Your task to perform on an android device: add a label to a message in the gmail app Image 0: 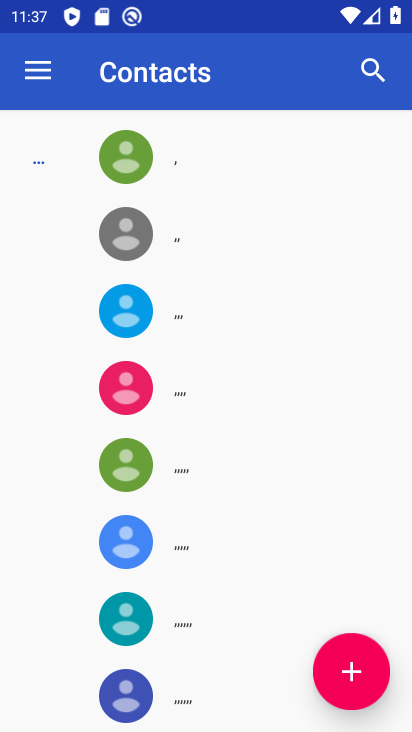
Step 0: press home button
Your task to perform on an android device: add a label to a message in the gmail app Image 1: 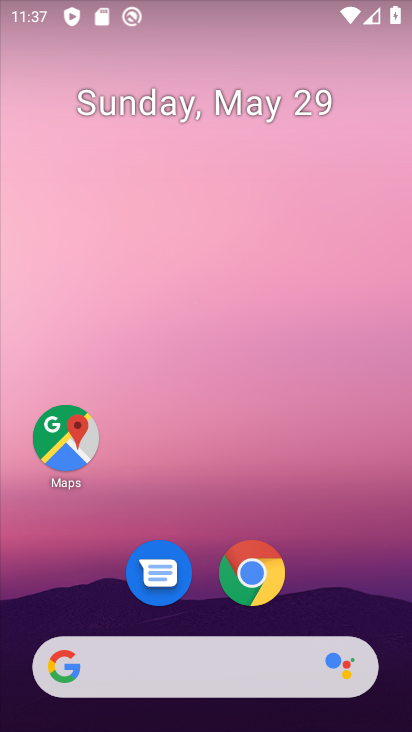
Step 1: drag from (213, 641) to (199, 71)
Your task to perform on an android device: add a label to a message in the gmail app Image 2: 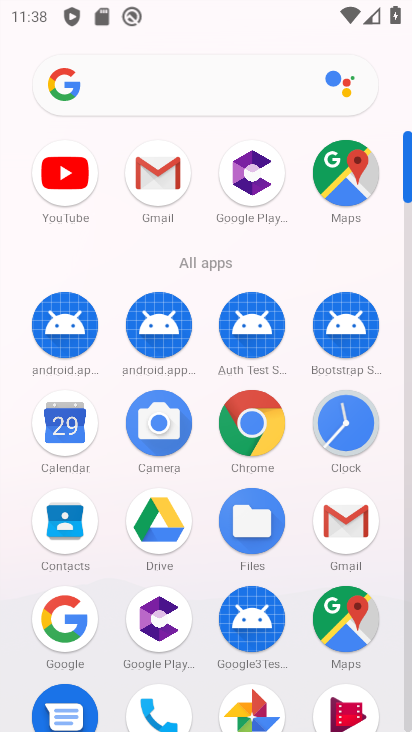
Step 2: click (357, 506)
Your task to perform on an android device: add a label to a message in the gmail app Image 3: 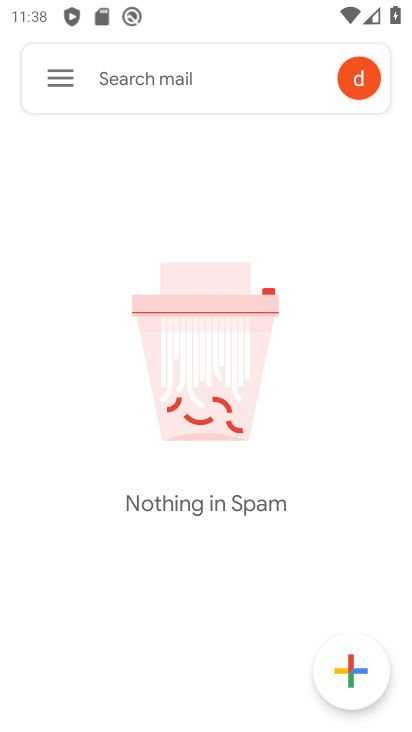
Step 3: click (34, 76)
Your task to perform on an android device: add a label to a message in the gmail app Image 4: 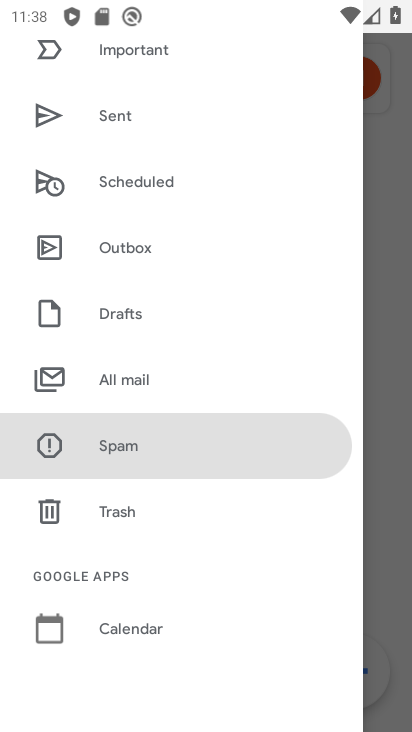
Step 4: click (131, 354)
Your task to perform on an android device: add a label to a message in the gmail app Image 5: 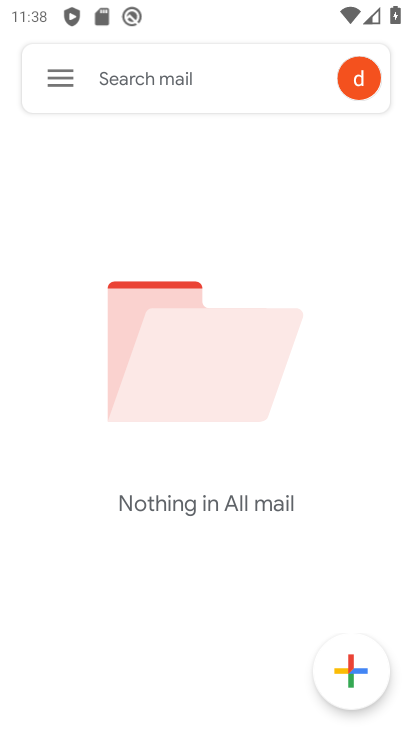
Step 5: task complete